Your task to perform on an android device: Open network settings Image 0: 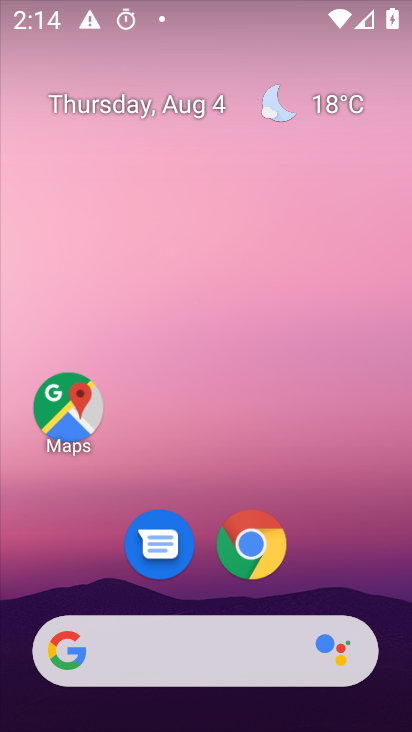
Step 0: drag from (370, 488) to (262, 44)
Your task to perform on an android device: Open network settings Image 1: 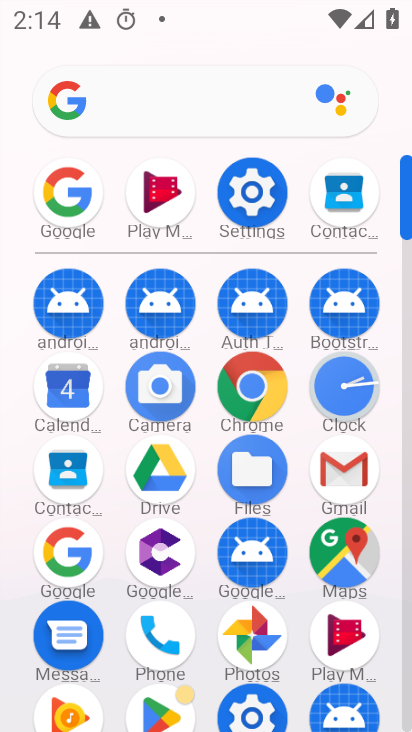
Step 1: click (264, 193)
Your task to perform on an android device: Open network settings Image 2: 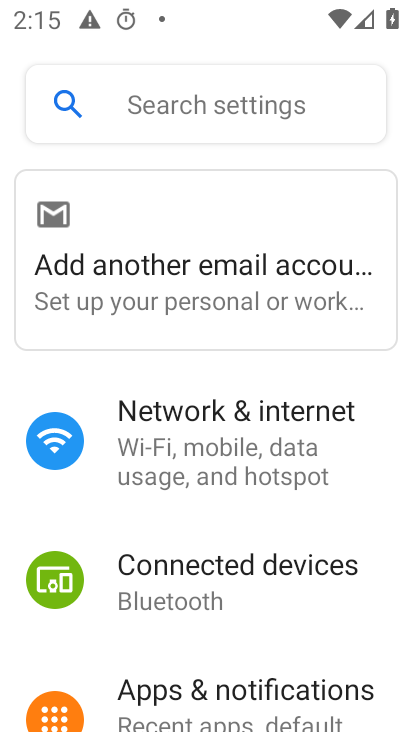
Step 2: click (238, 414)
Your task to perform on an android device: Open network settings Image 3: 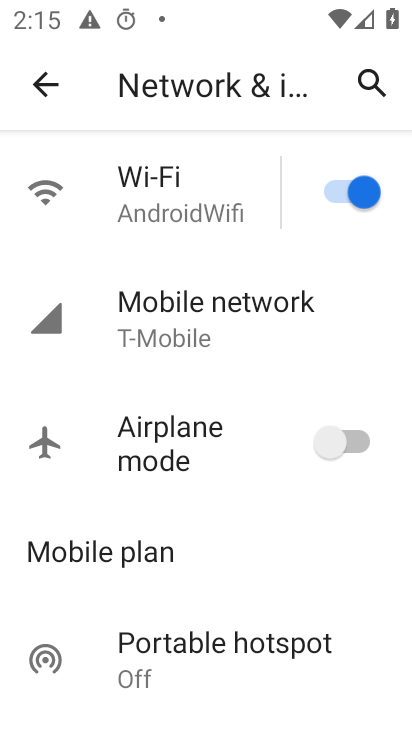
Step 3: click (169, 322)
Your task to perform on an android device: Open network settings Image 4: 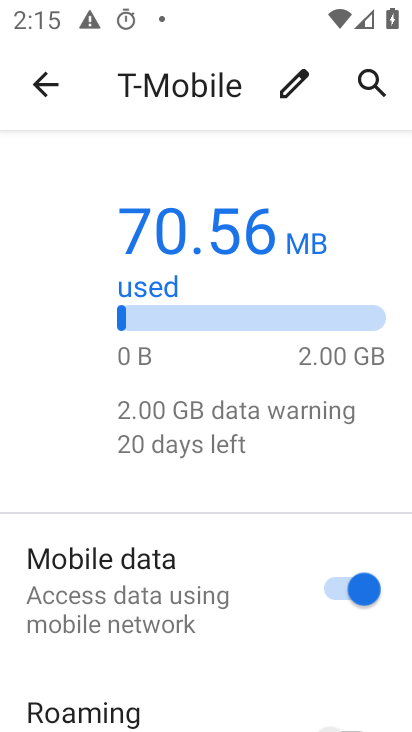
Step 4: drag from (212, 675) to (215, 277)
Your task to perform on an android device: Open network settings Image 5: 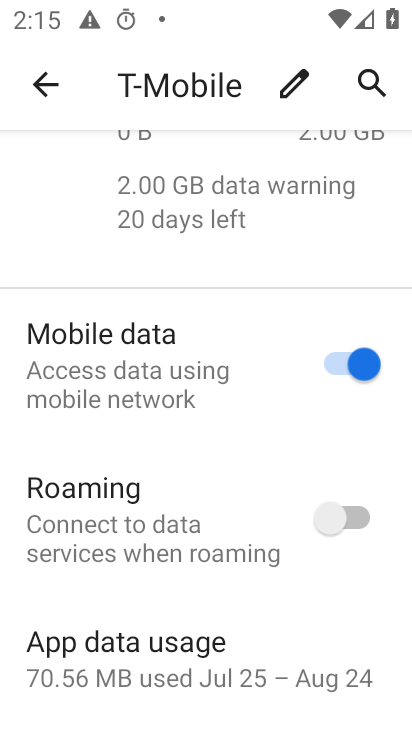
Step 5: drag from (212, 626) to (238, 207)
Your task to perform on an android device: Open network settings Image 6: 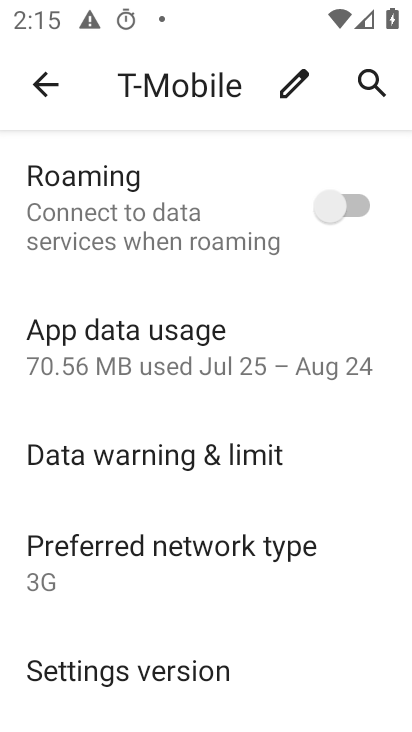
Step 6: drag from (238, 664) to (217, 253)
Your task to perform on an android device: Open network settings Image 7: 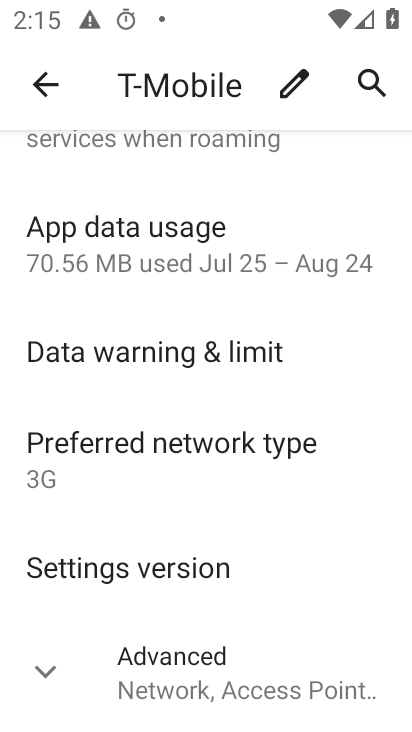
Step 7: drag from (272, 667) to (242, 279)
Your task to perform on an android device: Open network settings Image 8: 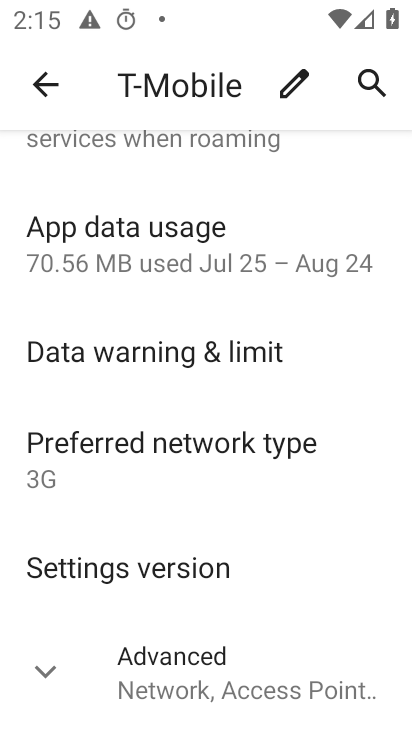
Step 8: click (59, 665)
Your task to perform on an android device: Open network settings Image 9: 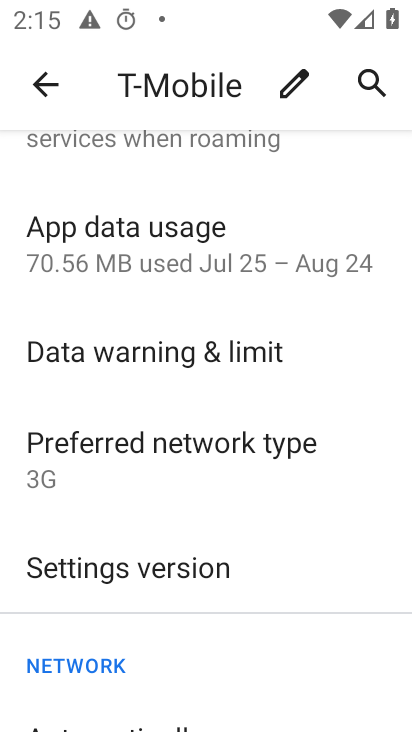
Step 9: task complete